Your task to perform on an android device: turn off location history Image 0: 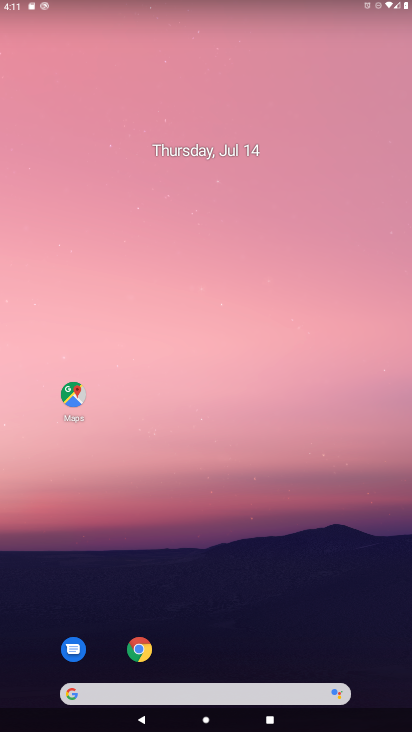
Step 0: drag from (188, 646) to (199, 118)
Your task to perform on an android device: turn off location history Image 1: 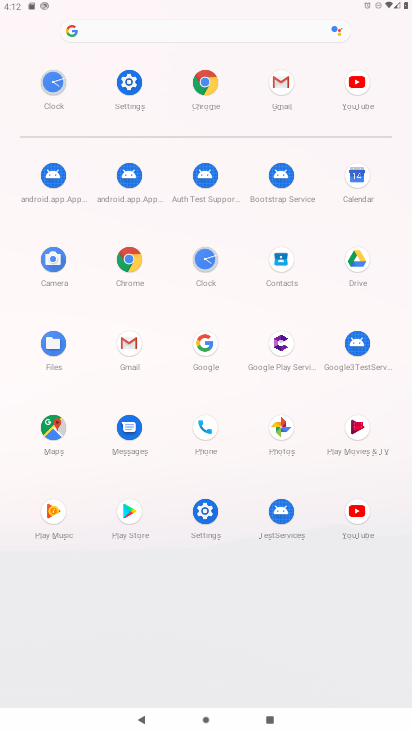
Step 1: click (198, 521)
Your task to perform on an android device: turn off location history Image 2: 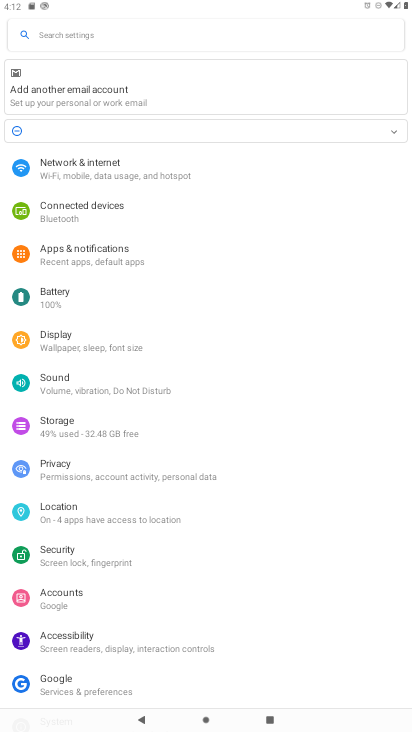
Step 2: click (82, 521)
Your task to perform on an android device: turn off location history Image 3: 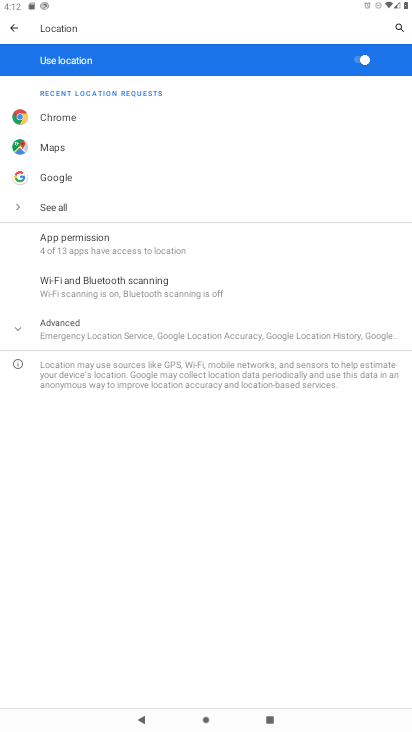
Step 3: click (124, 335)
Your task to perform on an android device: turn off location history Image 4: 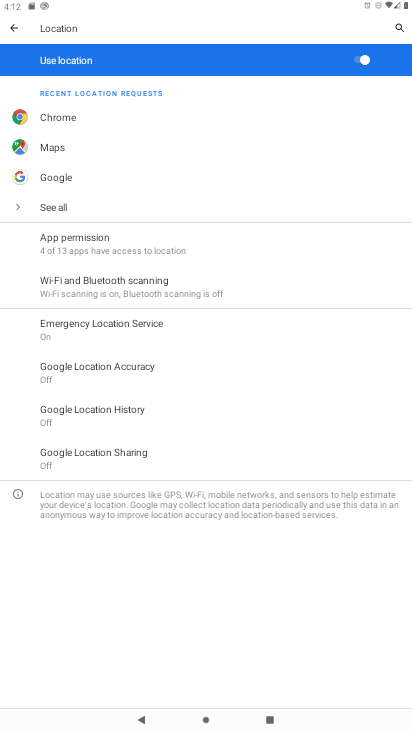
Step 4: click (125, 415)
Your task to perform on an android device: turn off location history Image 5: 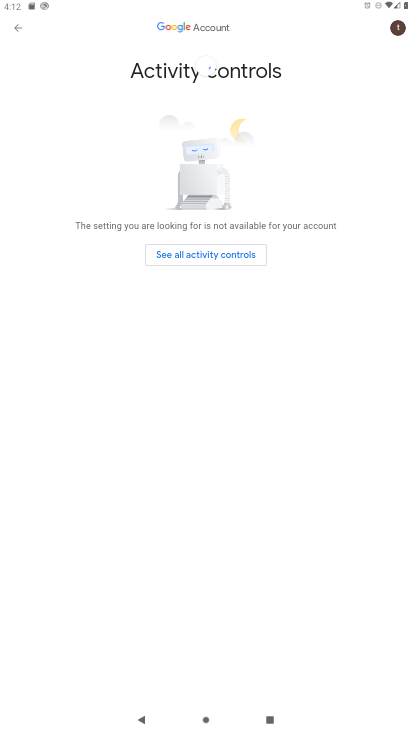
Step 5: click (235, 251)
Your task to perform on an android device: turn off location history Image 6: 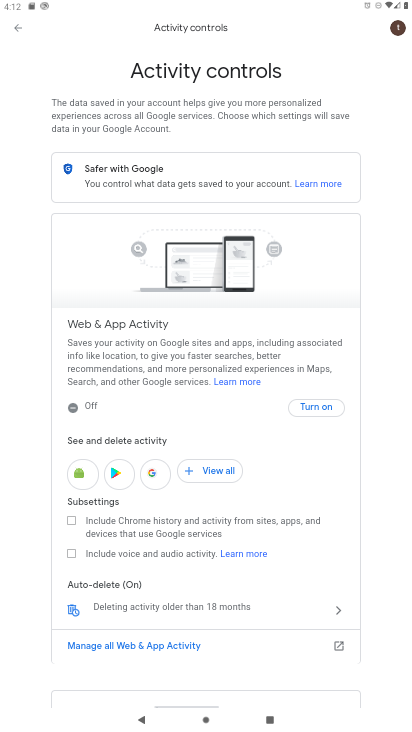
Step 6: task complete